Your task to perform on an android device: Open settings on Google Maps Image 0: 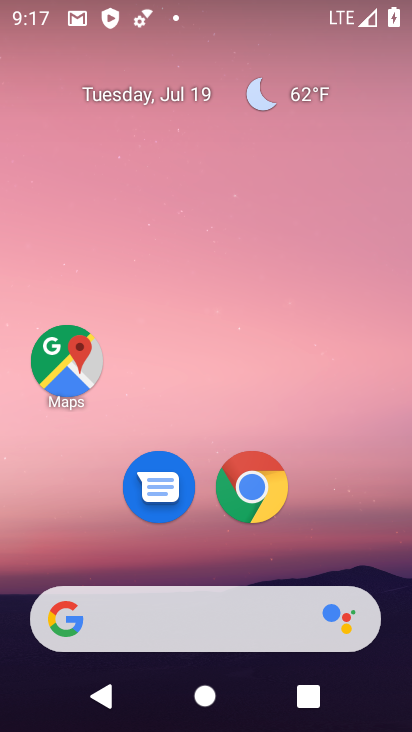
Step 0: click (64, 354)
Your task to perform on an android device: Open settings on Google Maps Image 1: 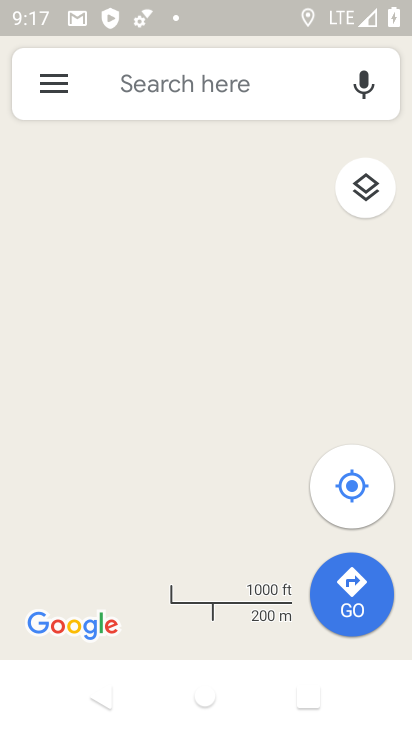
Step 1: click (52, 79)
Your task to perform on an android device: Open settings on Google Maps Image 2: 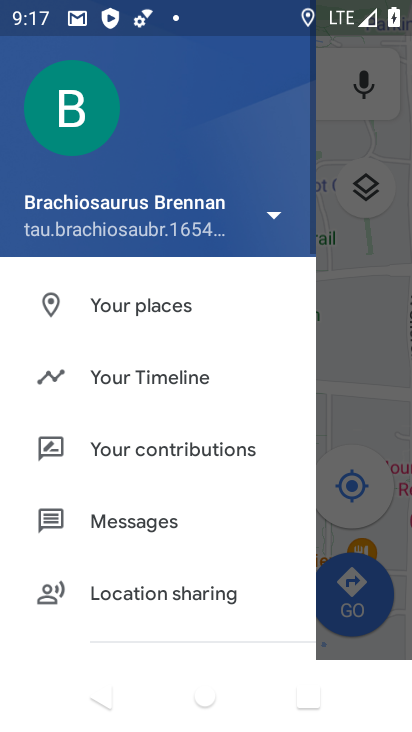
Step 2: drag from (164, 590) to (240, 12)
Your task to perform on an android device: Open settings on Google Maps Image 3: 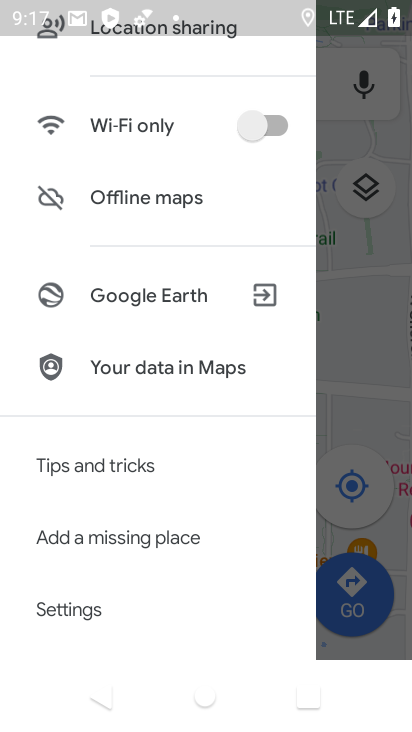
Step 3: click (97, 613)
Your task to perform on an android device: Open settings on Google Maps Image 4: 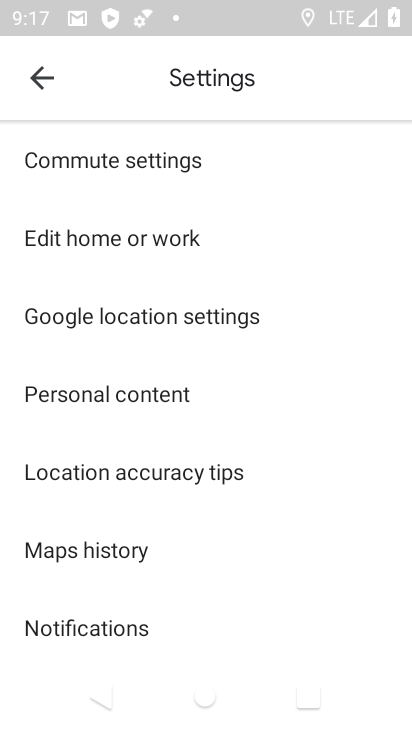
Step 4: task complete